Your task to perform on an android device: Go to wifi settings Image 0: 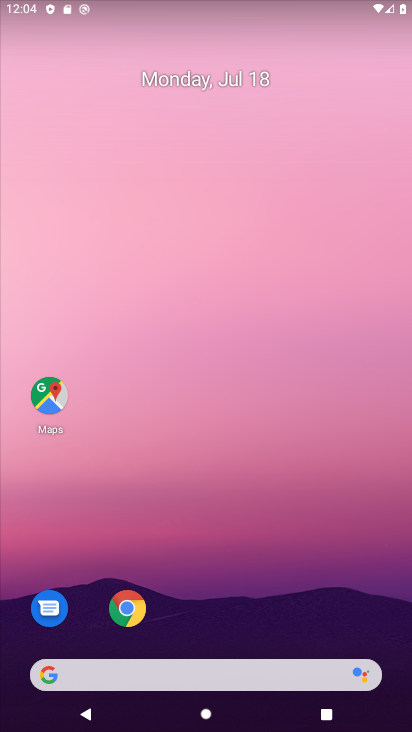
Step 0: drag from (312, 636) to (246, 183)
Your task to perform on an android device: Go to wifi settings Image 1: 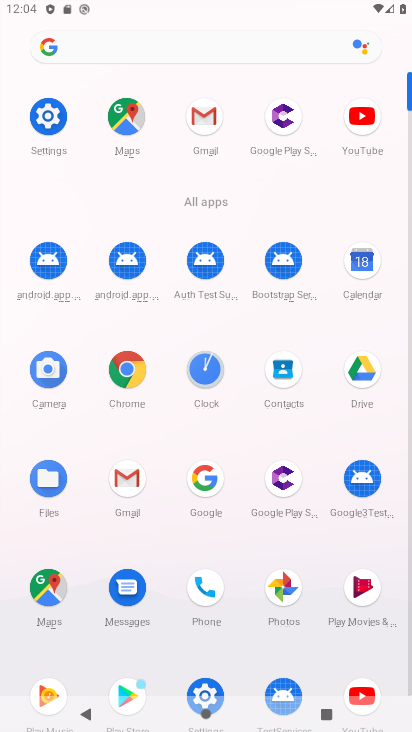
Step 1: click (39, 115)
Your task to perform on an android device: Go to wifi settings Image 2: 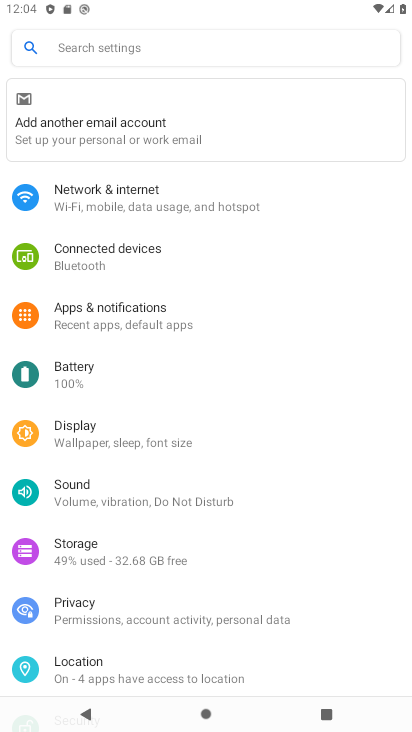
Step 2: click (107, 206)
Your task to perform on an android device: Go to wifi settings Image 3: 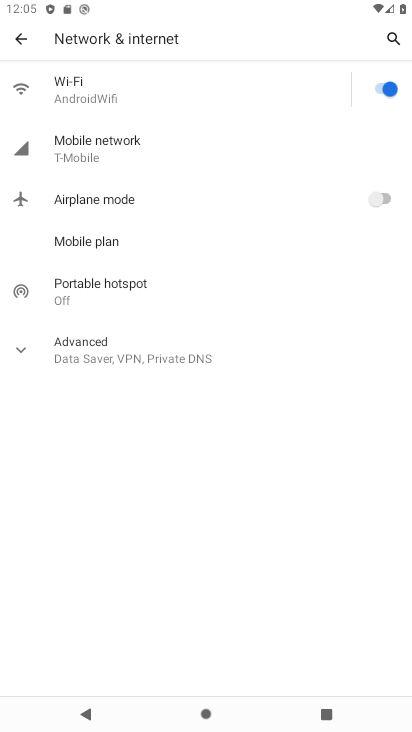
Step 3: click (103, 97)
Your task to perform on an android device: Go to wifi settings Image 4: 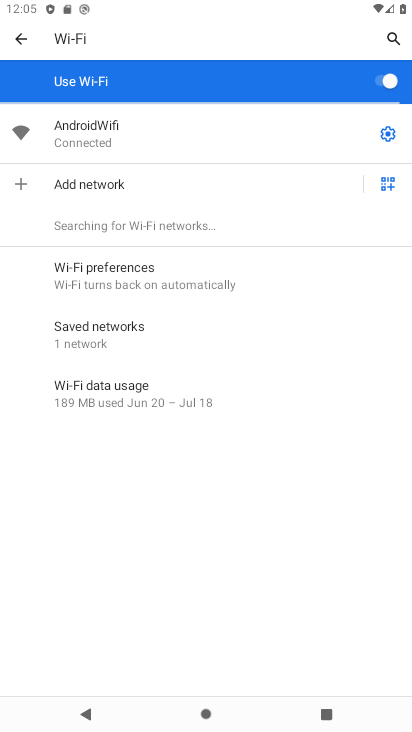
Step 4: task complete